Your task to perform on an android device: check out phone information Image 0: 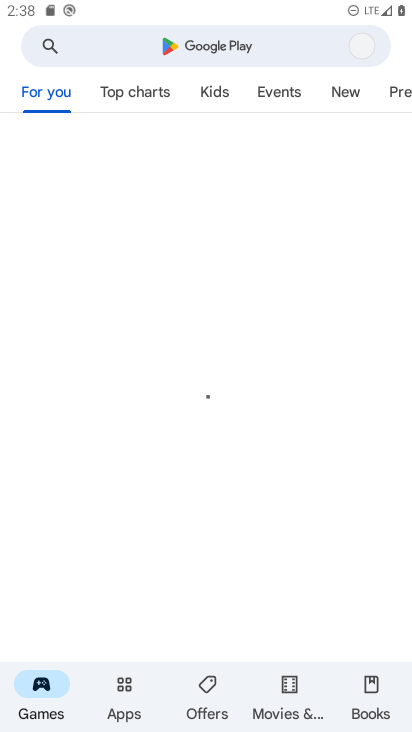
Step 0: press home button
Your task to perform on an android device: check out phone information Image 1: 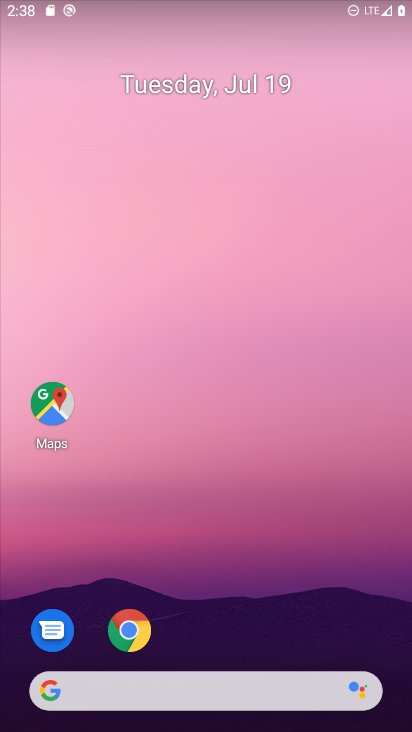
Step 1: drag from (364, 612) to (329, 224)
Your task to perform on an android device: check out phone information Image 2: 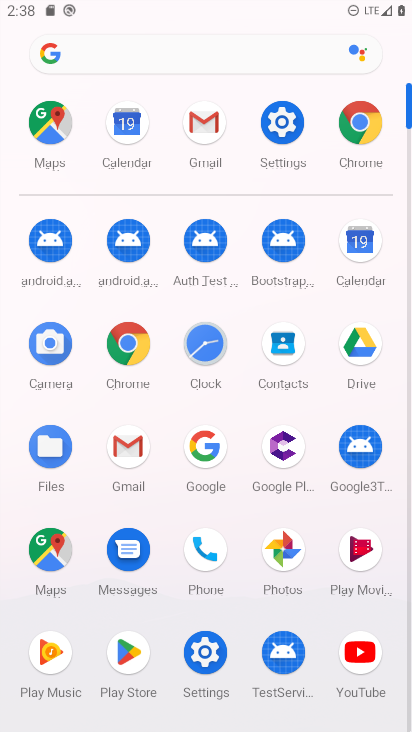
Step 2: click (203, 654)
Your task to perform on an android device: check out phone information Image 3: 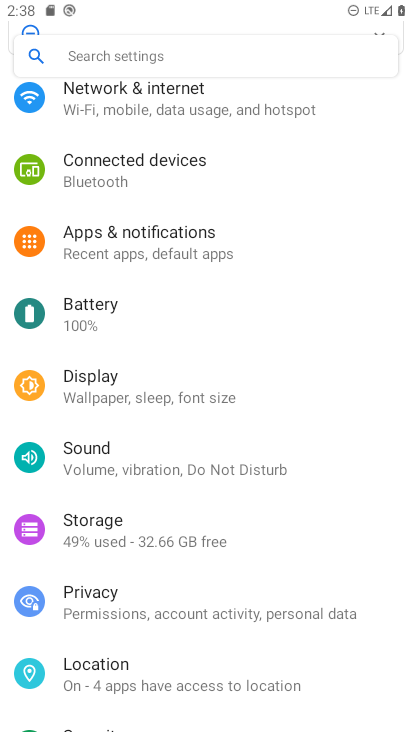
Step 3: drag from (324, 397) to (309, 8)
Your task to perform on an android device: check out phone information Image 4: 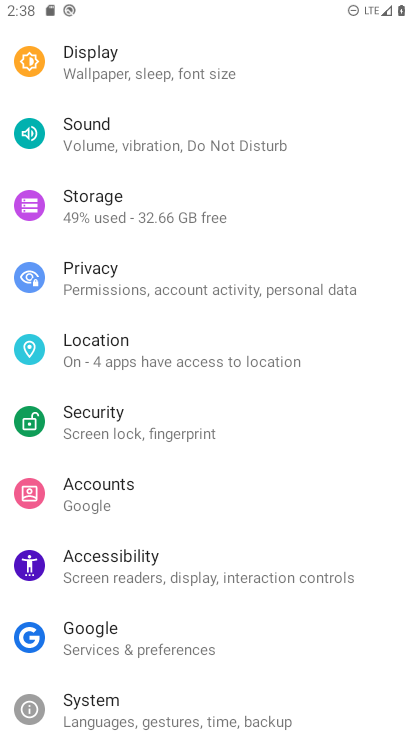
Step 4: drag from (325, 504) to (337, 68)
Your task to perform on an android device: check out phone information Image 5: 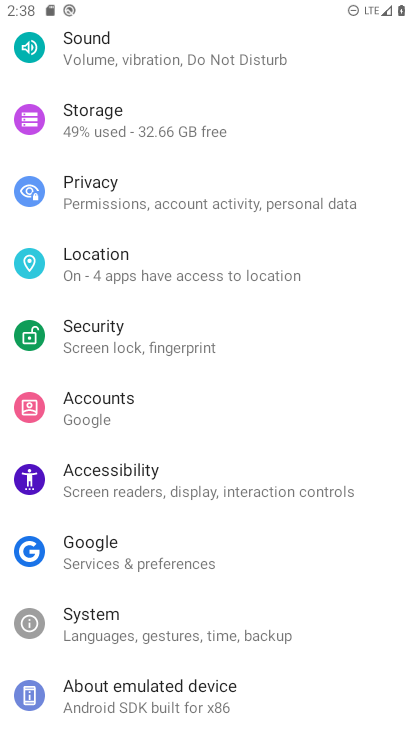
Step 5: click (180, 678)
Your task to perform on an android device: check out phone information Image 6: 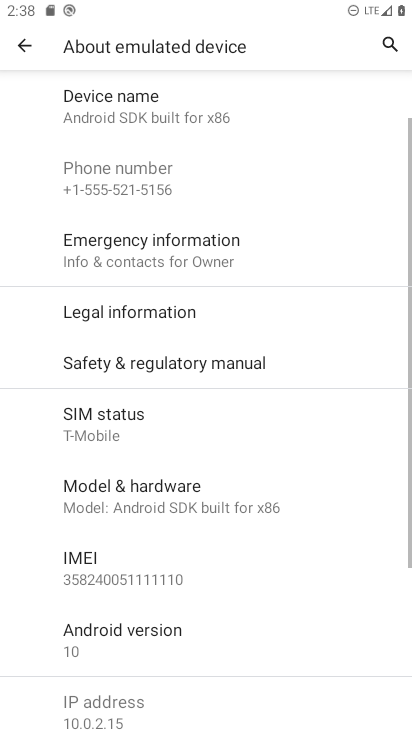
Step 6: task complete